Your task to perform on an android device: toggle notifications settings in the gmail app Image 0: 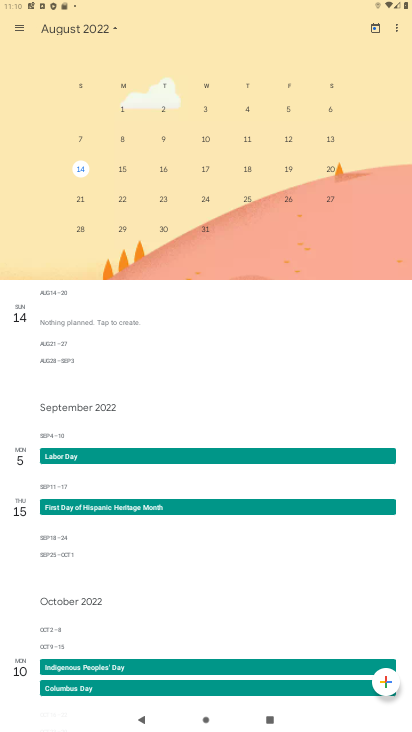
Step 0: press home button
Your task to perform on an android device: toggle notifications settings in the gmail app Image 1: 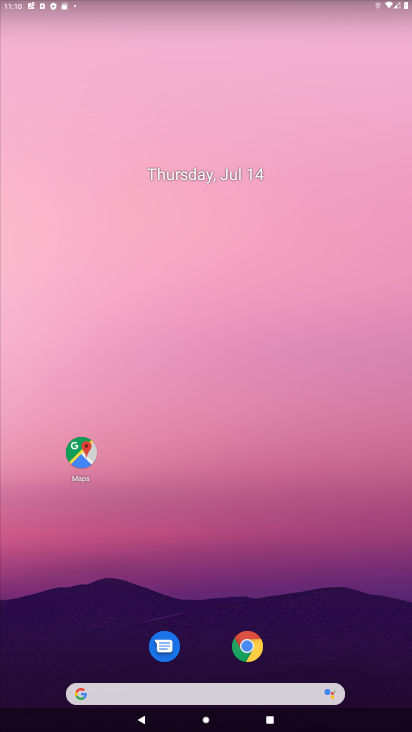
Step 1: drag from (204, 635) to (164, 250)
Your task to perform on an android device: toggle notifications settings in the gmail app Image 2: 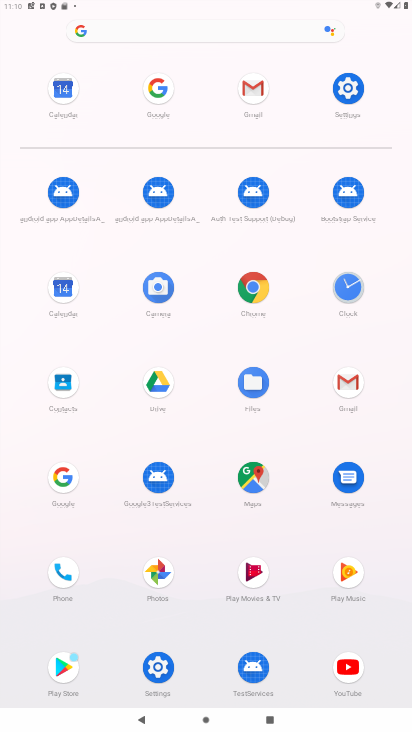
Step 2: click (243, 106)
Your task to perform on an android device: toggle notifications settings in the gmail app Image 3: 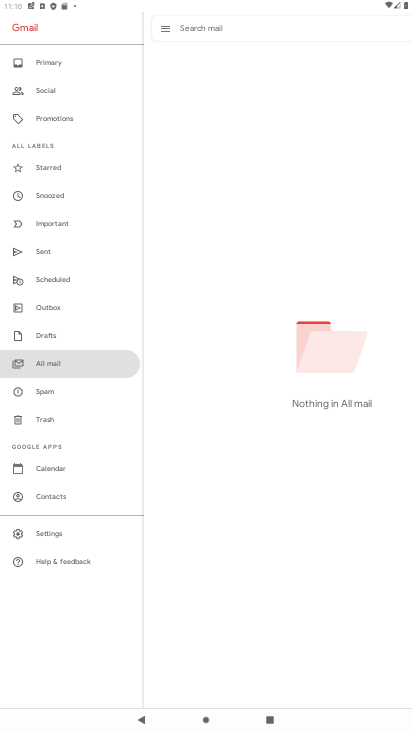
Step 3: click (47, 532)
Your task to perform on an android device: toggle notifications settings in the gmail app Image 4: 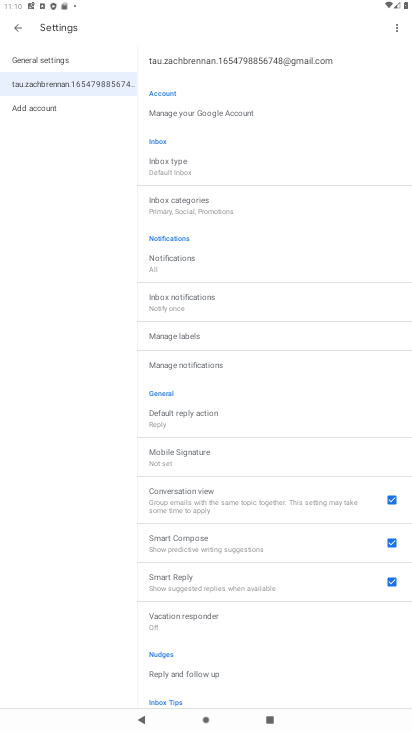
Step 4: click (186, 361)
Your task to perform on an android device: toggle notifications settings in the gmail app Image 5: 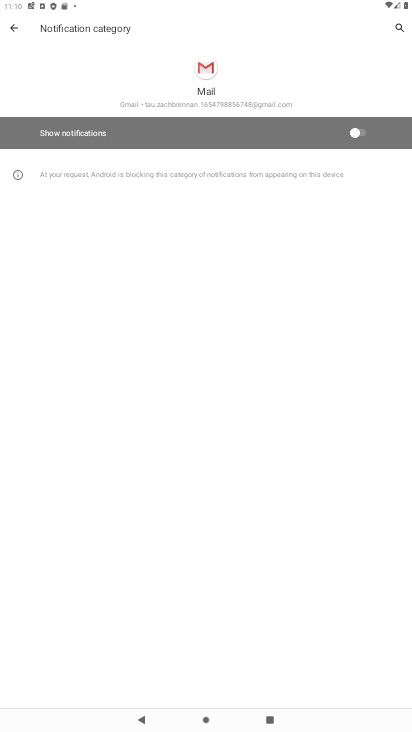
Step 5: click (362, 135)
Your task to perform on an android device: toggle notifications settings in the gmail app Image 6: 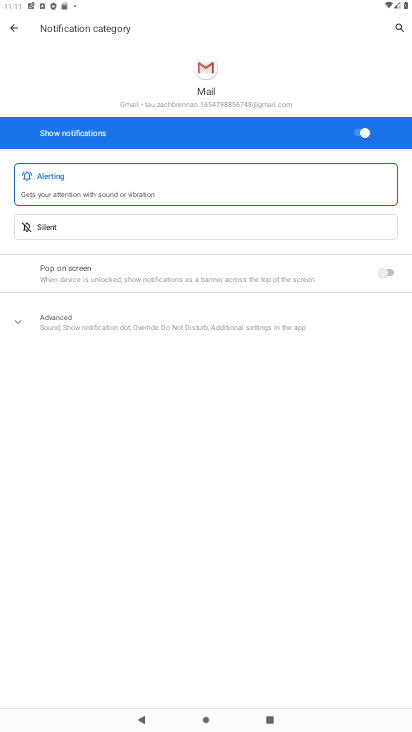
Step 6: task complete